Your task to perform on an android device: set an alarm Image 0: 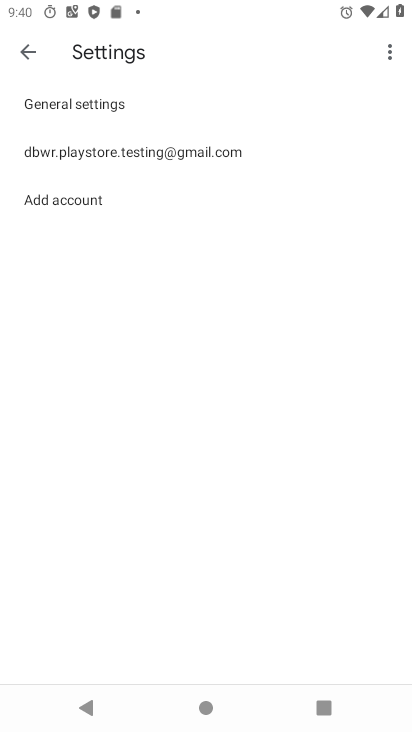
Step 0: press home button
Your task to perform on an android device: set an alarm Image 1: 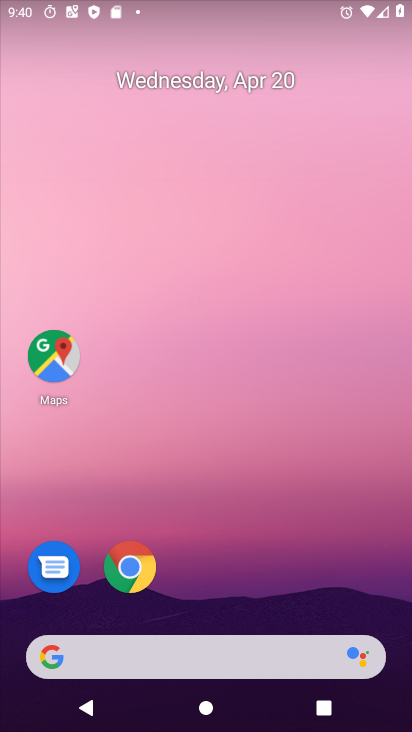
Step 1: drag from (255, 480) to (256, 266)
Your task to perform on an android device: set an alarm Image 2: 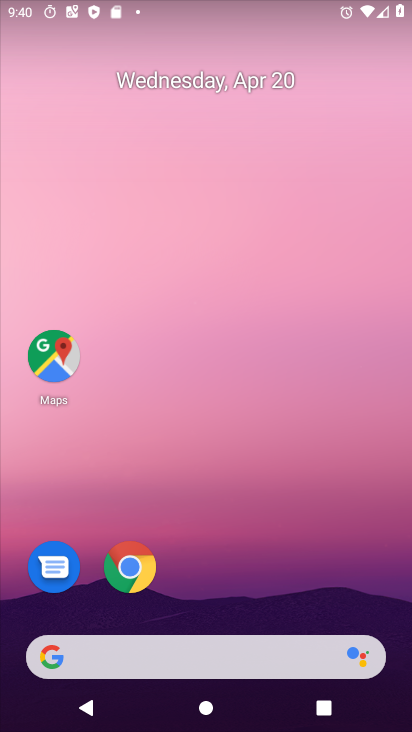
Step 2: drag from (228, 585) to (280, 147)
Your task to perform on an android device: set an alarm Image 3: 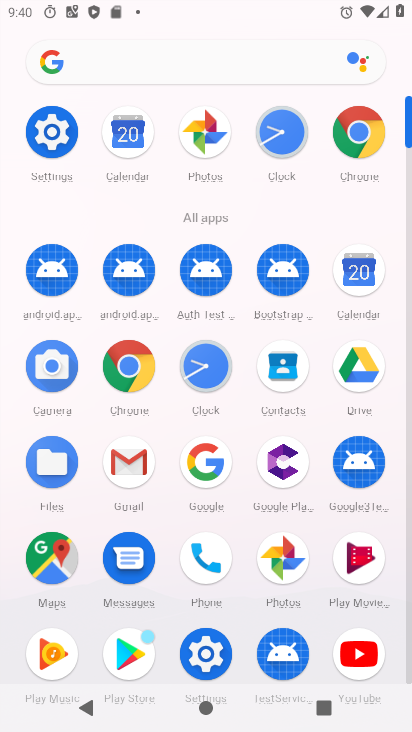
Step 3: click (200, 365)
Your task to perform on an android device: set an alarm Image 4: 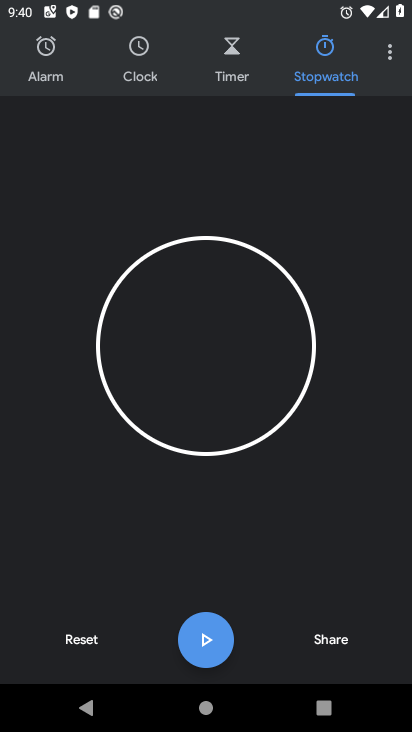
Step 4: click (51, 59)
Your task to perform on an android device: set an alarm Image 5: 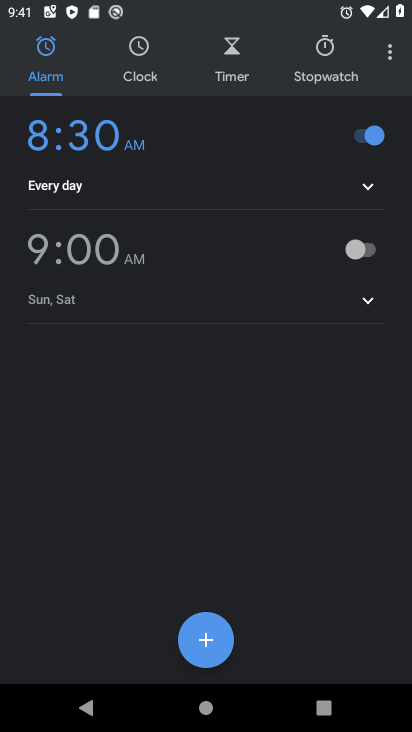
Step 5: click (282, 266)
Your task to perform on an android device: set an alarm Image 6: 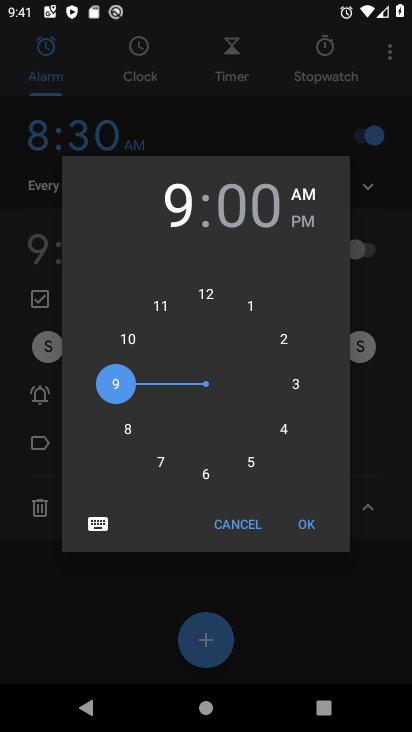
Step 6: click (148, 320)
Your task to perform on an android device: set an alarm Image 7: 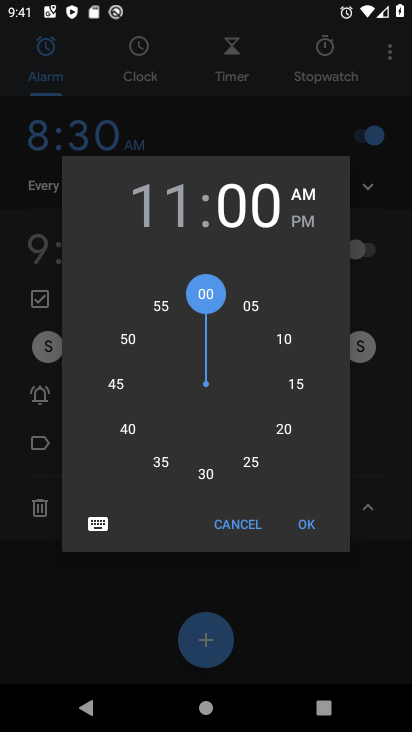
Step 7: click (297, 526)
Your task to perform on an android device: set an alarm Image 8: 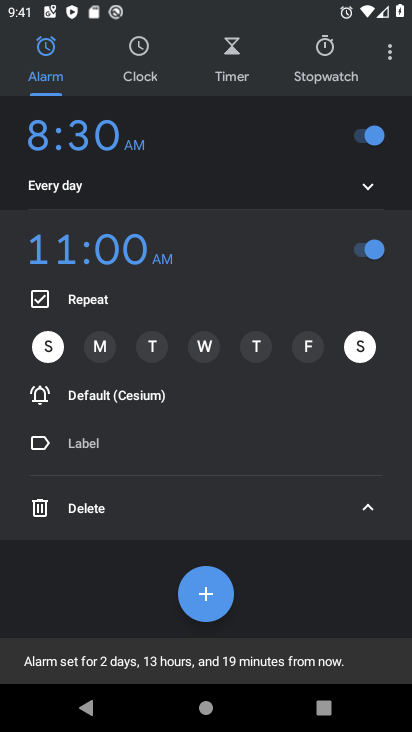
Step 8: click (104, 343)
Your task to perform on an android device: set an alarm Image 9: 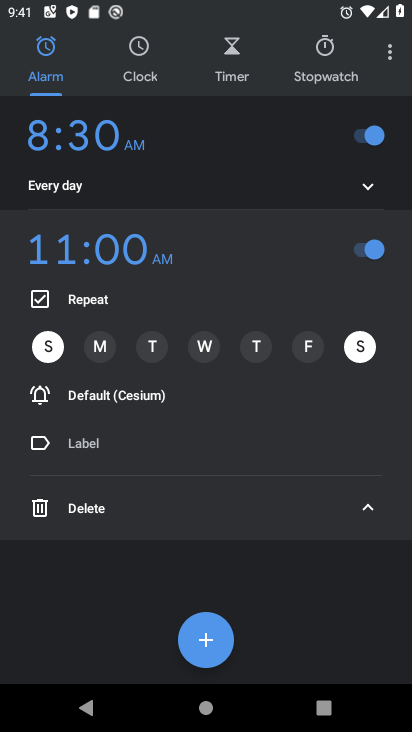
Step 9: click (155, 351)
Your task to perform on an android device: set an alarm Image 10: 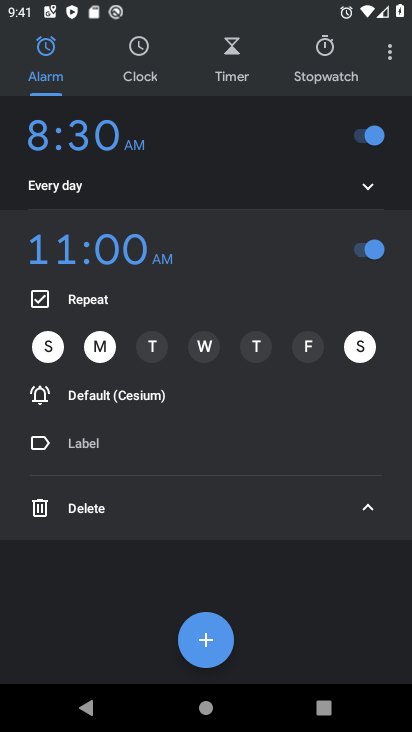
Step 10: click (192, 348)
Your task to perform on an android device: set an alarm Image 11: 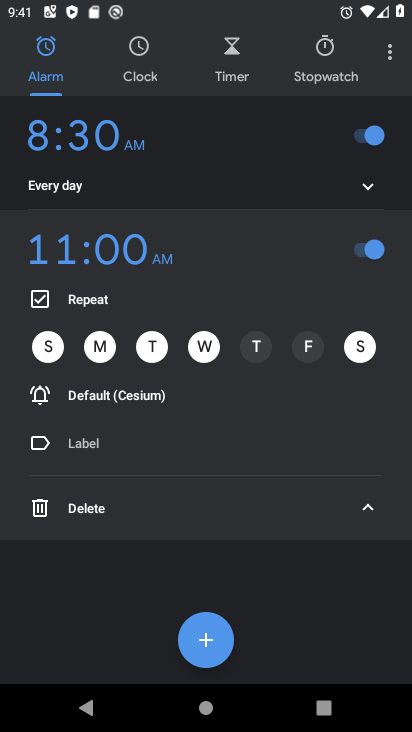
Step 11: click (251, 351)
Your task to perform on an android device: set an alarm Image 12: 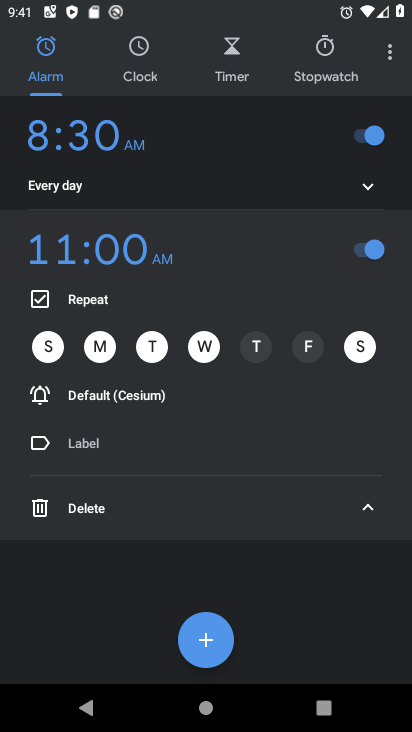
Step 12: click (305, 353)
Your task to perform on an android device: set an alarm Image 13: 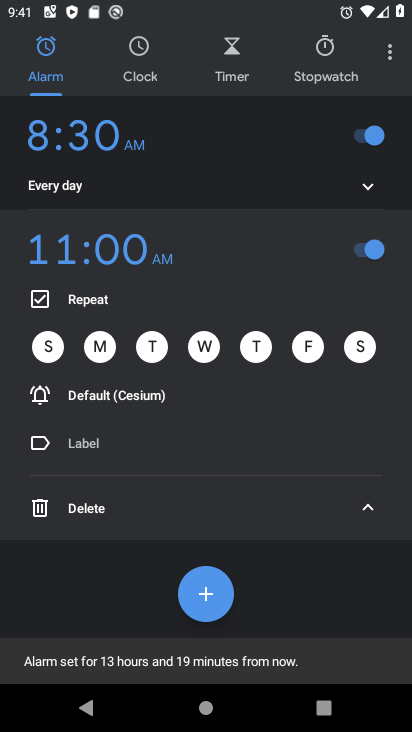
Step 13: click (359, 516)
Your task to perform on an android device: set an alarm Image 14: 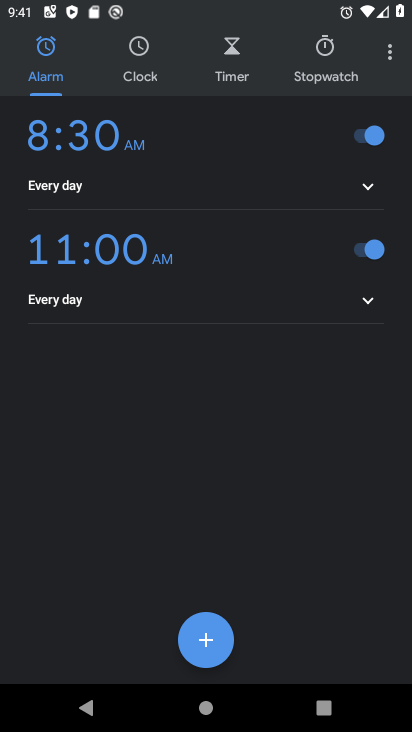
Step 14: task complete